Your task to perform on an android device: turn on the 24-hour format for clock Image 0: 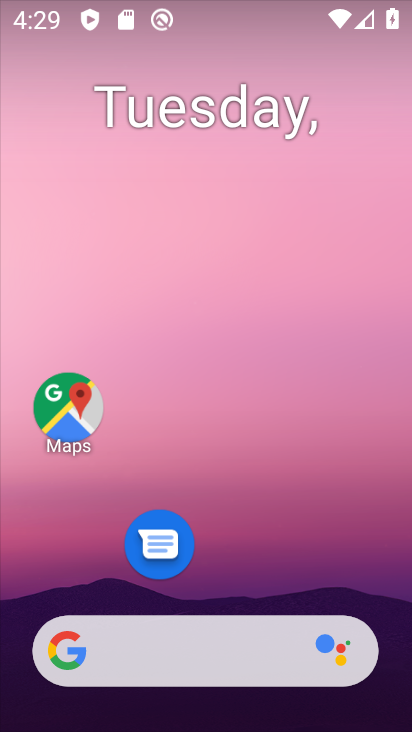
Step 0: drag from (252, 557) to (359, 8)
Your task to perform on an android device: turn on the 24-hour format for clock Image 1: 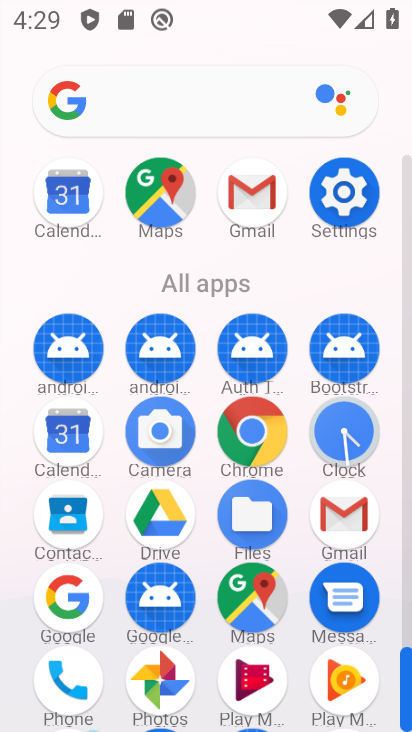
Step 1: click (339, 186)
Your task to perform on an android device: turn on the 24-hour format for clock Image 2: 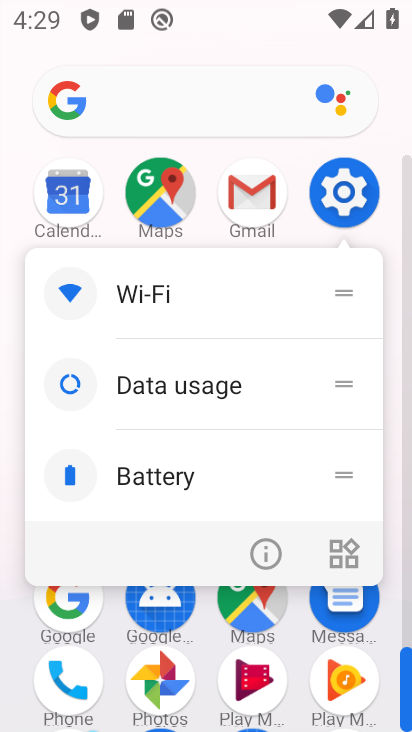
Step 2: click (382, 191)
Your task to perform on an android device: turn on the 24-hour format for clock Image 3: 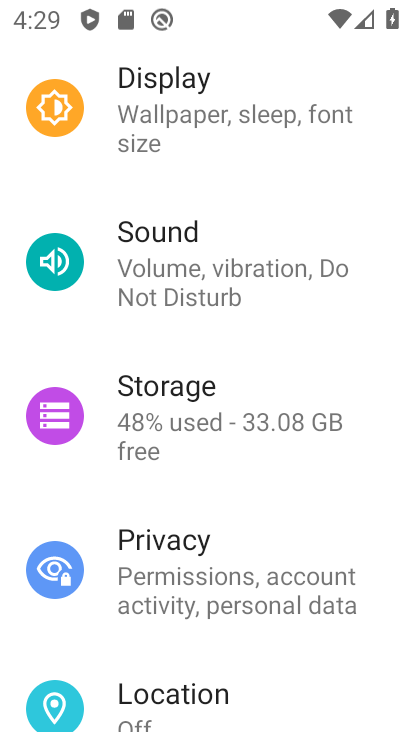
Step 3: drag from (196, 635) to (228, 337)
Your task to perform on an android device: turn on the 24-hour format for clock Image 4: 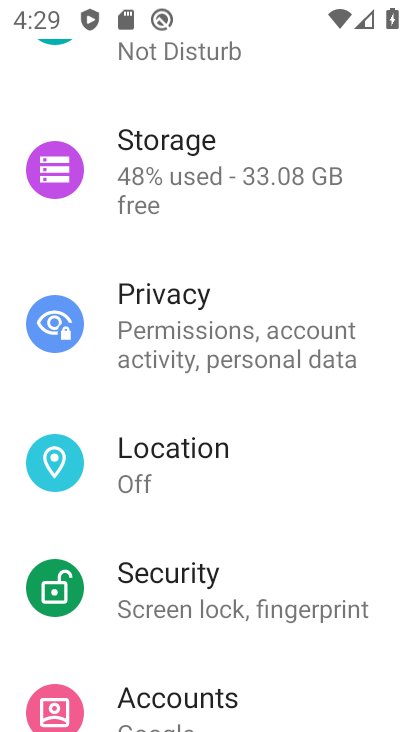
Step 4: drag from (214, 590) to (259, 176)
Your task to perform on an android device: turn on the 24-hour format for clock Image 5: 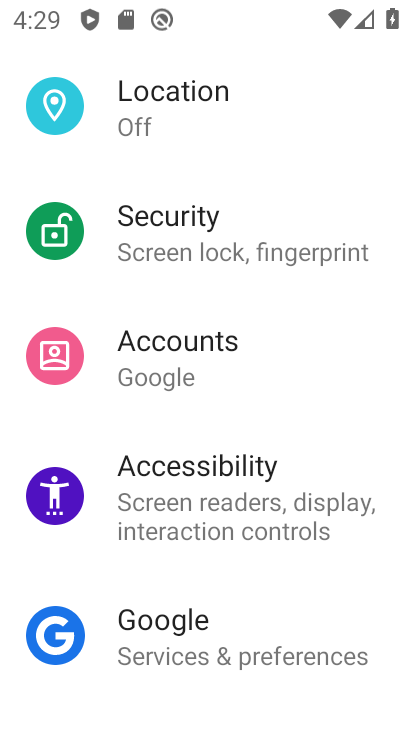
Step 5: drag from (219, 599) to (264, 385)
Your task to perform on an android device: turn on the 24-hour format for clock Image 6: 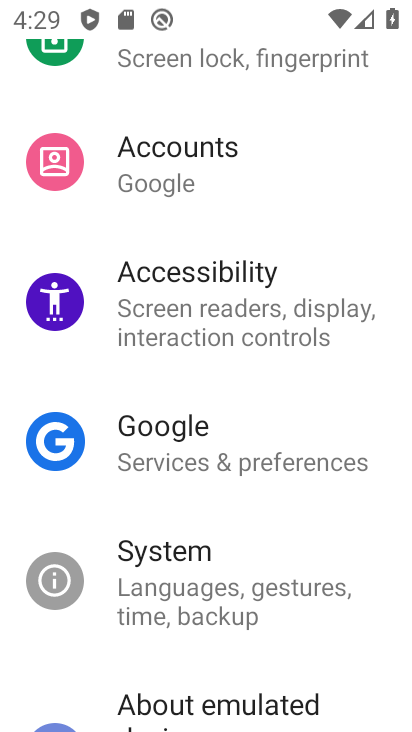
Step 6: click (207, 578)
Your task to perform on an android device: turn on the 24-hour format for clock Image 7: 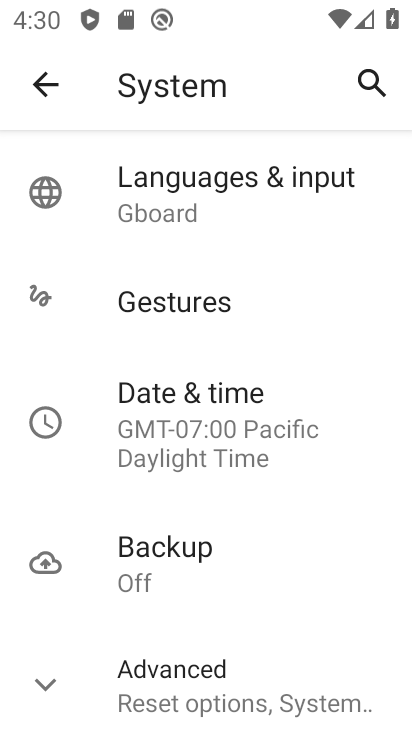
Step 7: click (207, 455)
Your task to perform on an android device: turn on the 24-hour format for clock Image 8: 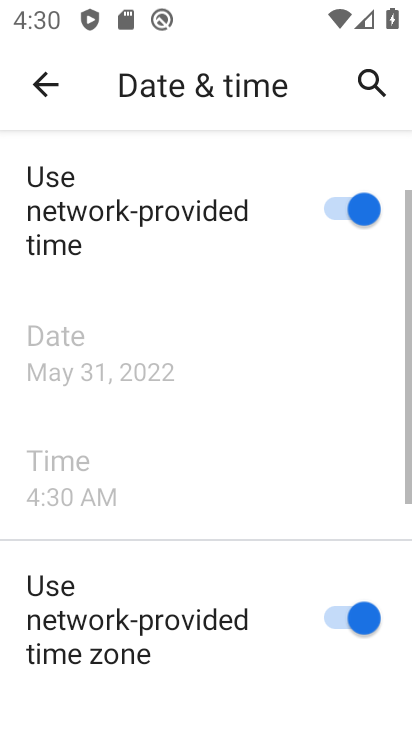
Step 8: drag from (179, 607) to (238, 229)
Your task to perform on an android device: turn on the 24-hour format for clock Image 9: 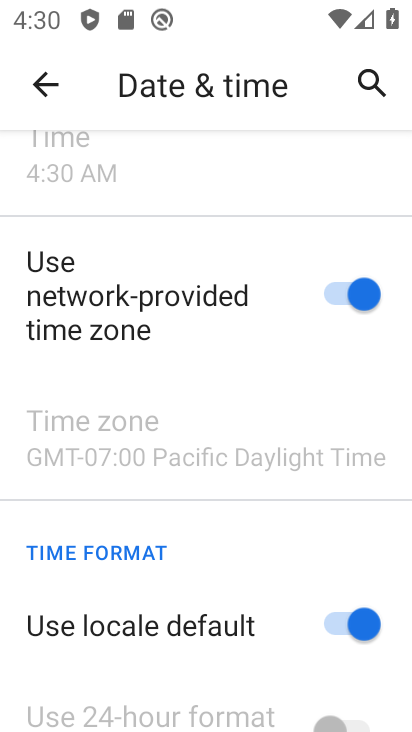
Step 9: drag from (277, 614) to (299, 466)
Your task to perform on an android device: turn on the 24-hour format for clock Image 10: 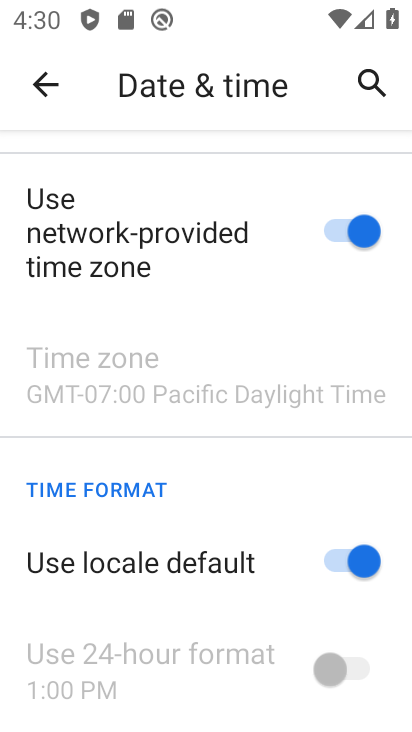
Step 10: click (331, 552)
Your task to perform on an android device: turn on the 24-hour format for clock Image 11: 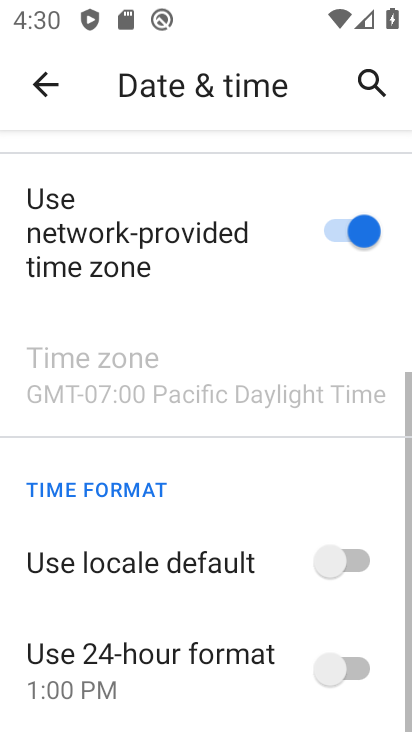
Step 11: click (381, 671)
Your task to perform on an android device: turn on the 24-hour format for clock Image 12: 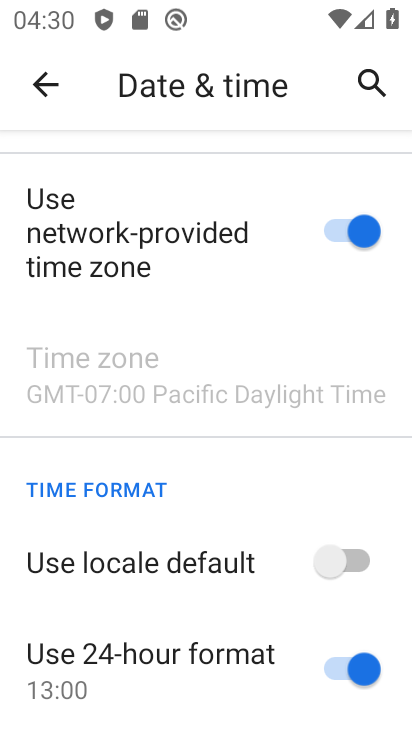
Step 12: task complete